Your task to perform on an android device: Do I have any events today? Image 0: 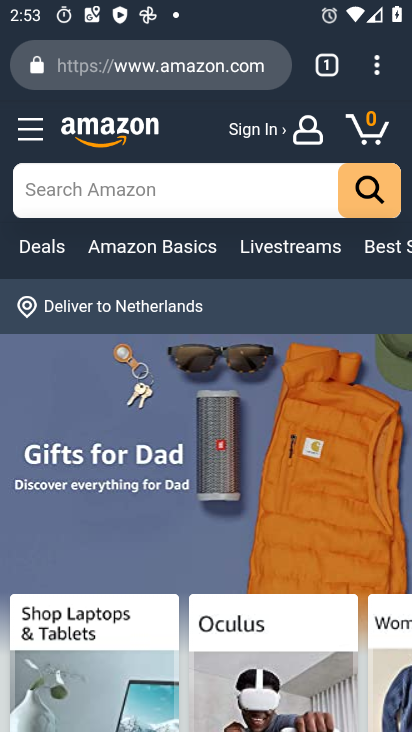
Step 0: press home button
Your task to perform on an android device: Do I have any events today? Image 1: 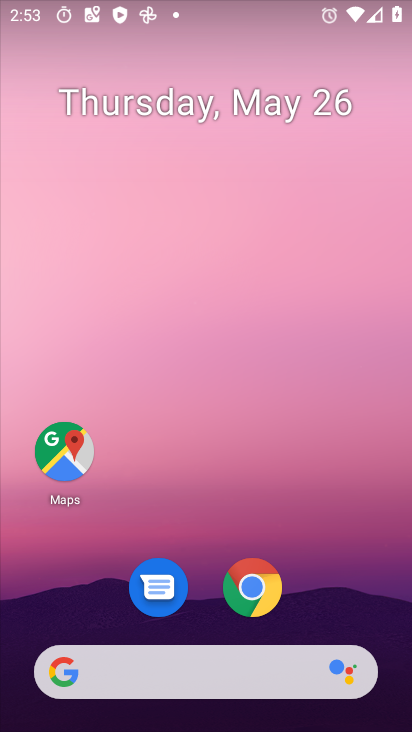
Step 1: drag from (368, 622) to (368, 192)
Your task to perform on an android device: Do I have any events today? Image 2: 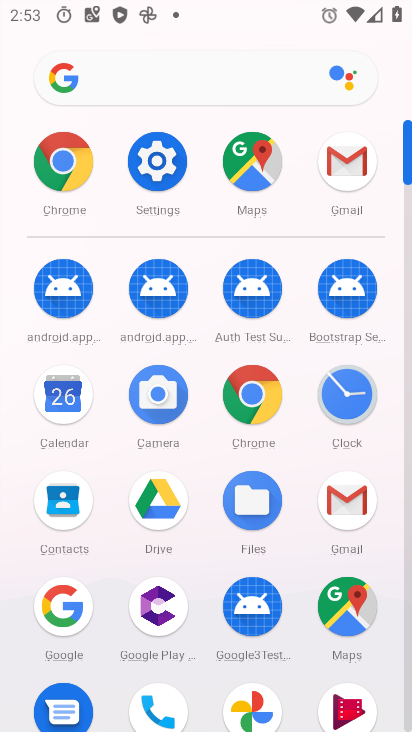
Step 2: click (57, 398)
Your task to perform on an android device: Do I have any events today? Image 3: 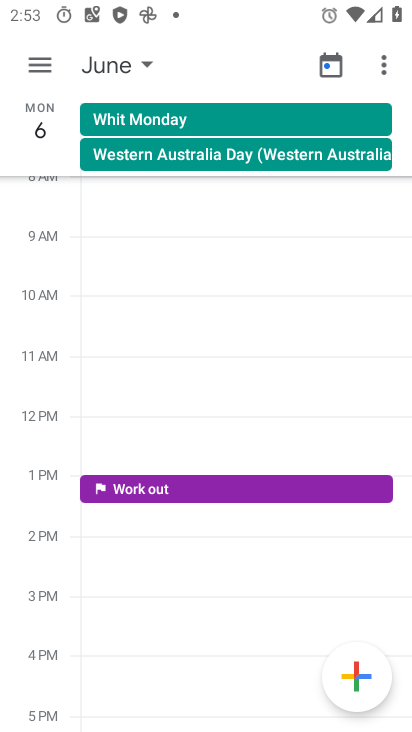
Step 3: click (151, 61)
Your task to perform on an android device: Do I have any events today? Image 4: 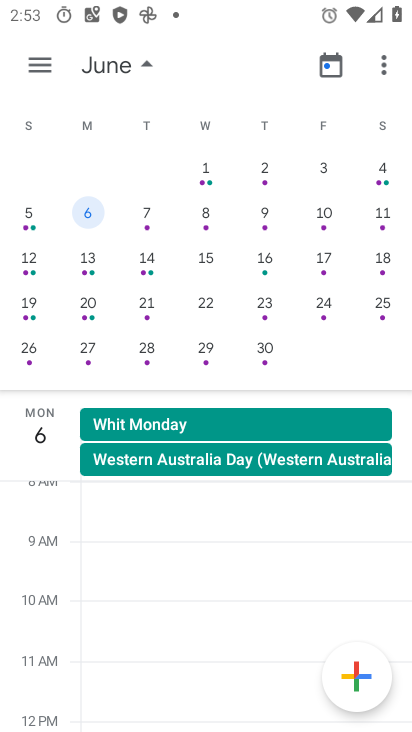
Step 4: drag from (21, 164) to (408, 181)
Your task to perform on an android device: Do I have any events today? Image 5: 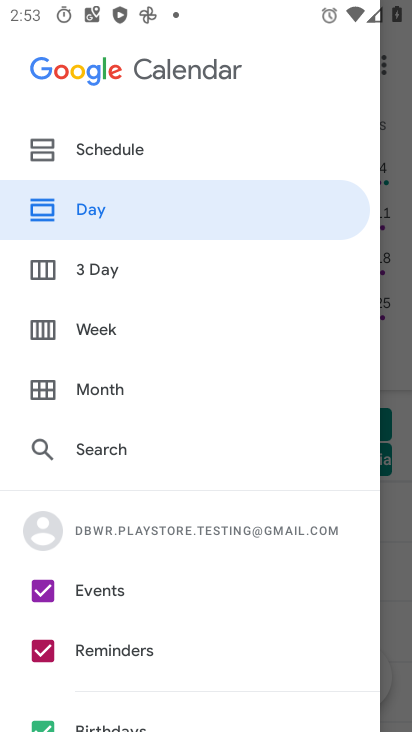
Step 5: drag from (368, 193) to (44, 170)
Your task to perform on an android device: Do I have any events today? Image 6: 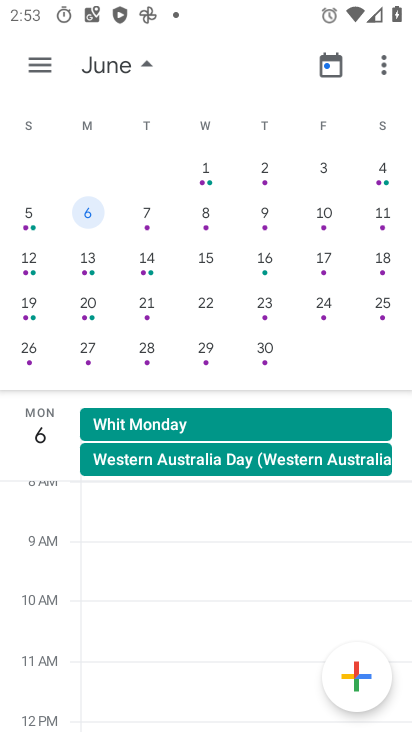
Step 6: drag from (82, 146) to (396, 179)
Your task to perform on an android device: Do I have any events today? Image 7: 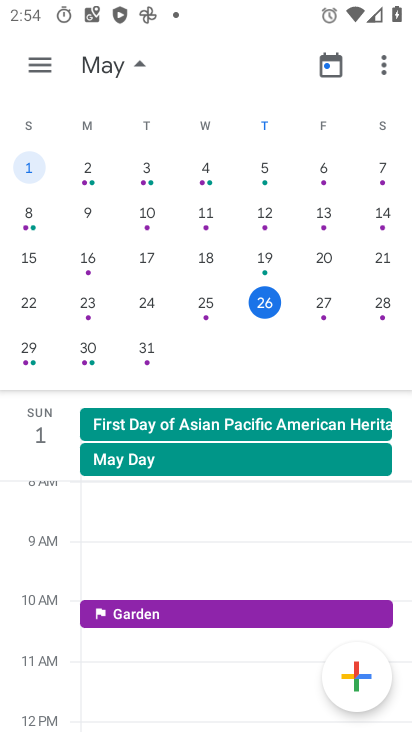
Step 7: click (279, 309)
Your task to perform on an android device: Do I have any events today? Image 8: 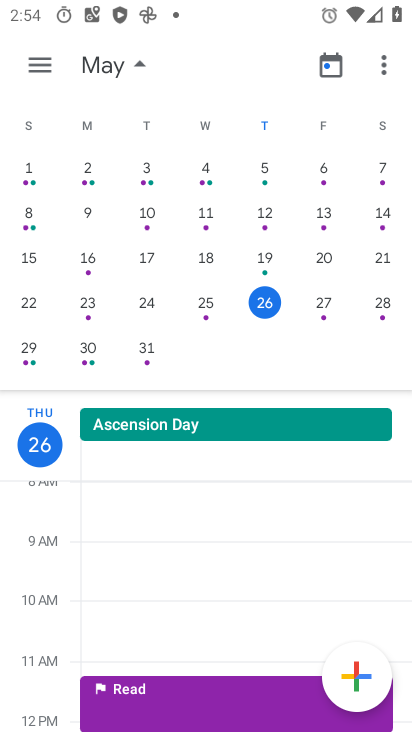
Step 8: click (220, 416)
Your task to perform on an android device: Do I have any events today? Image 9: 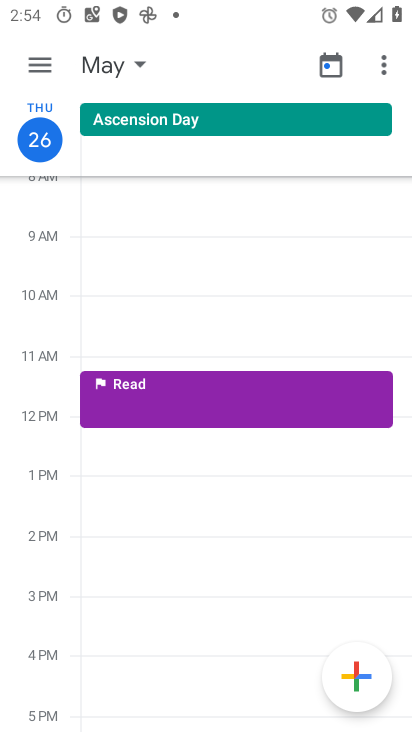
Step 9: task complete